Your task to perform on an android device: check battery use Image 0: 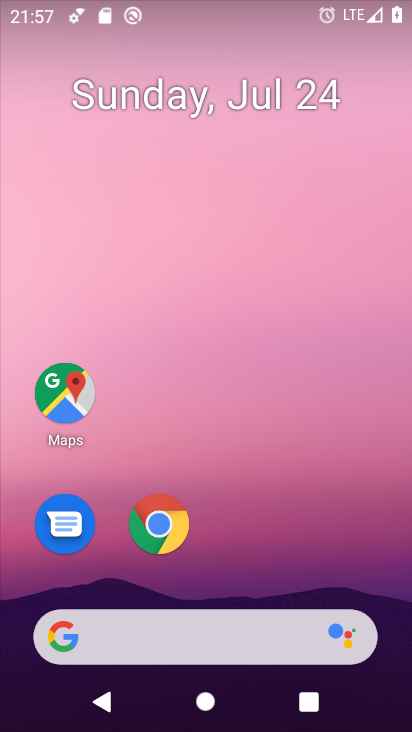
Step 0: drag from (269, 513) to (275, 70)
Your task to perform on an android device: check battery use Image 1: 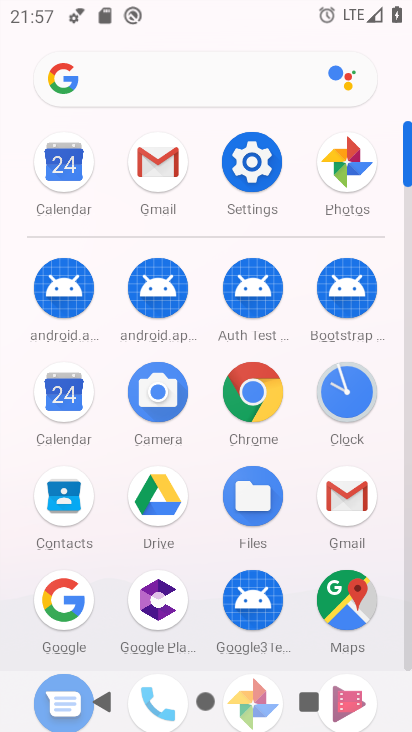
Step 1: click (258, 146)
Your task to perform on an android device: check battery use Image 2: 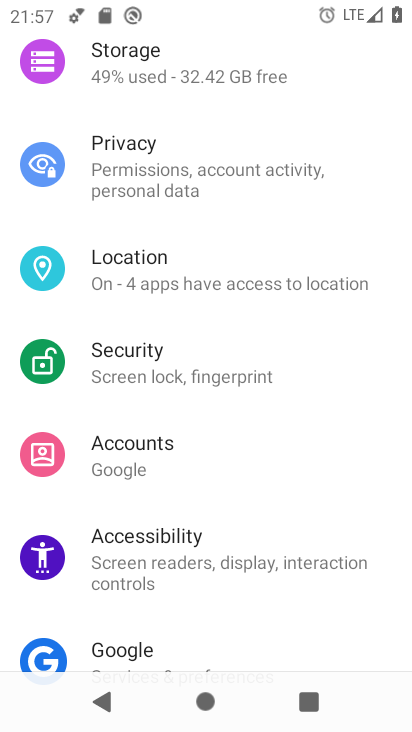
Step 2: drag from (223, 115) to (188, 629)
Your task to perform on an android device: check battery use Image 3: 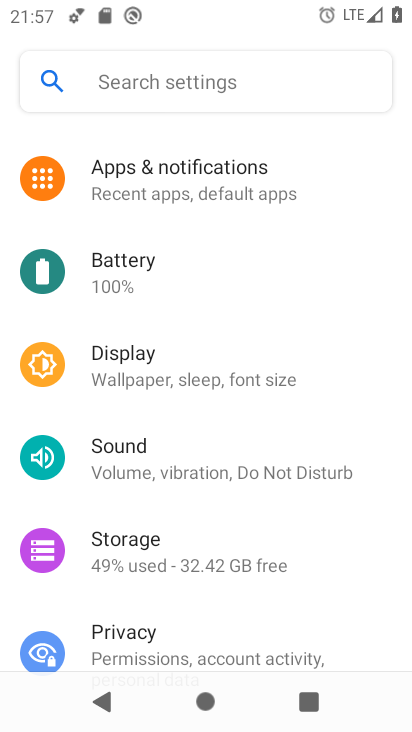
Step 3: click (126, 265)
Your task to perform on an android device: check battery use Image 4: 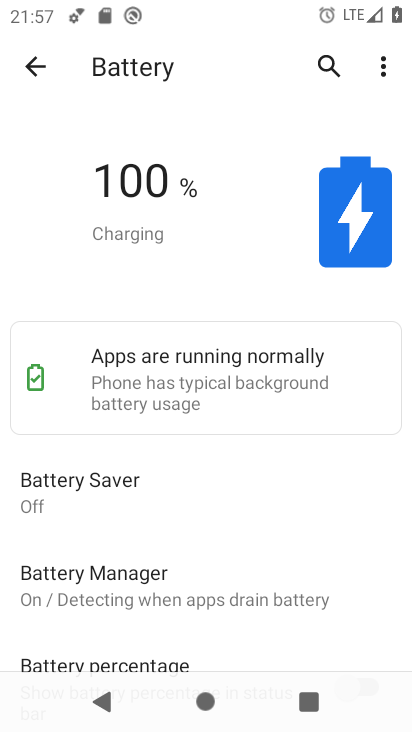
Step 4: click (383, 75)
Your task to perform on an android device: check battery use Image 5: 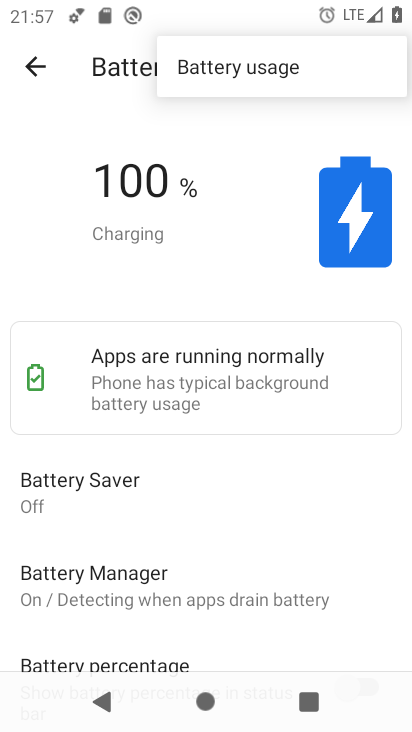
Step 5: click (248, 72)
Your task to perform on an android device: check battery use Image 6: 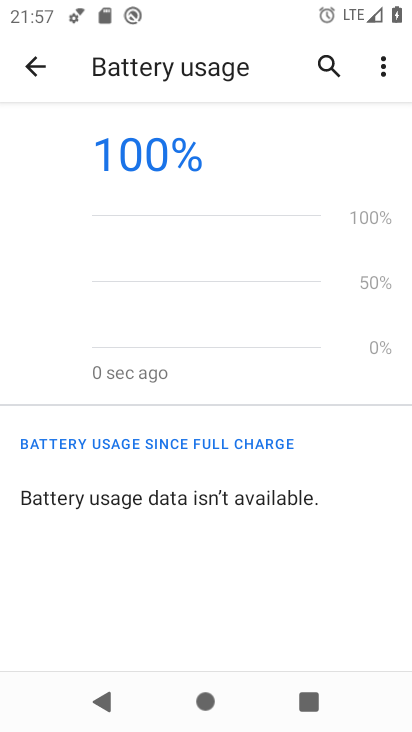
Step 6: task complete